Your task to perform on an android device: How big is a giraffe? Image 0: 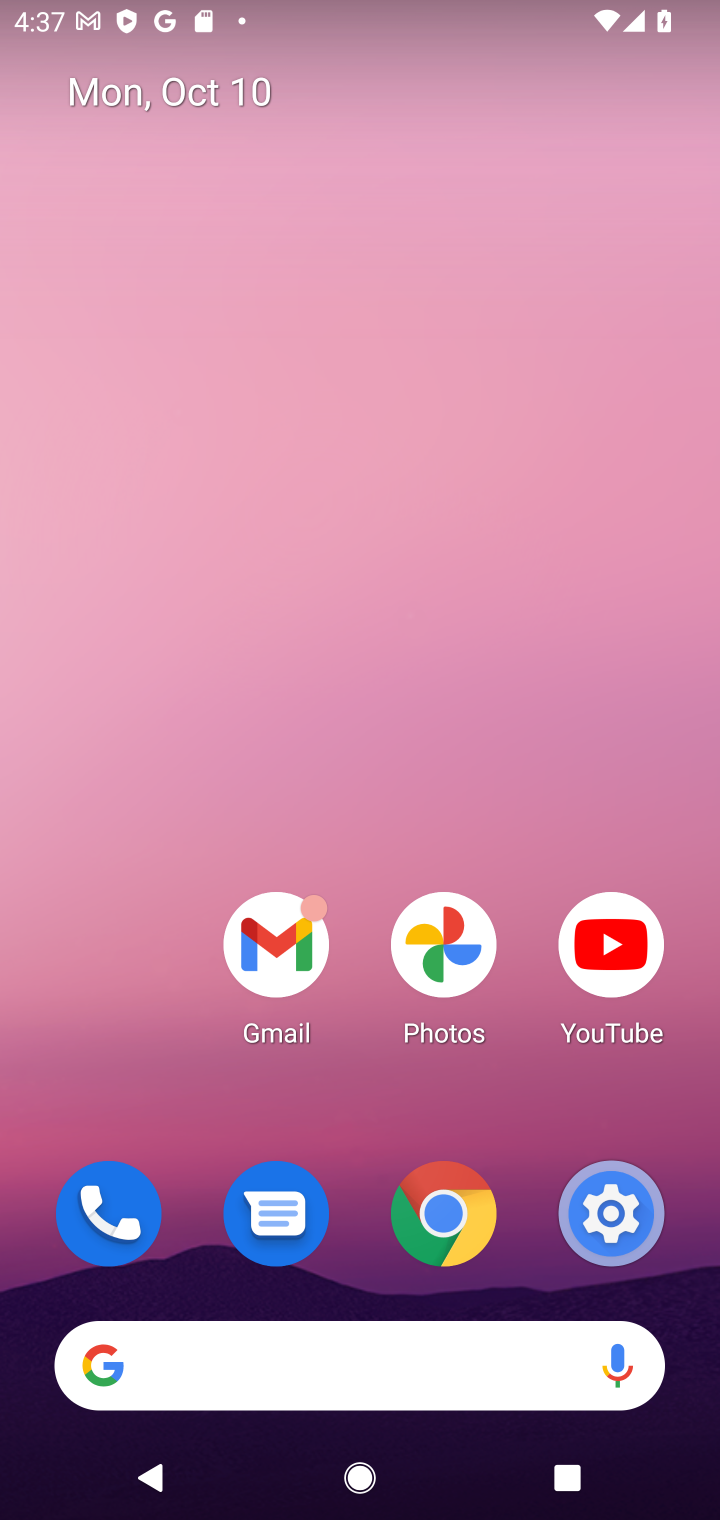
Step 0: click (386, 1379)
Your task to perform on an android device: How big is a giraffe? Image 1: 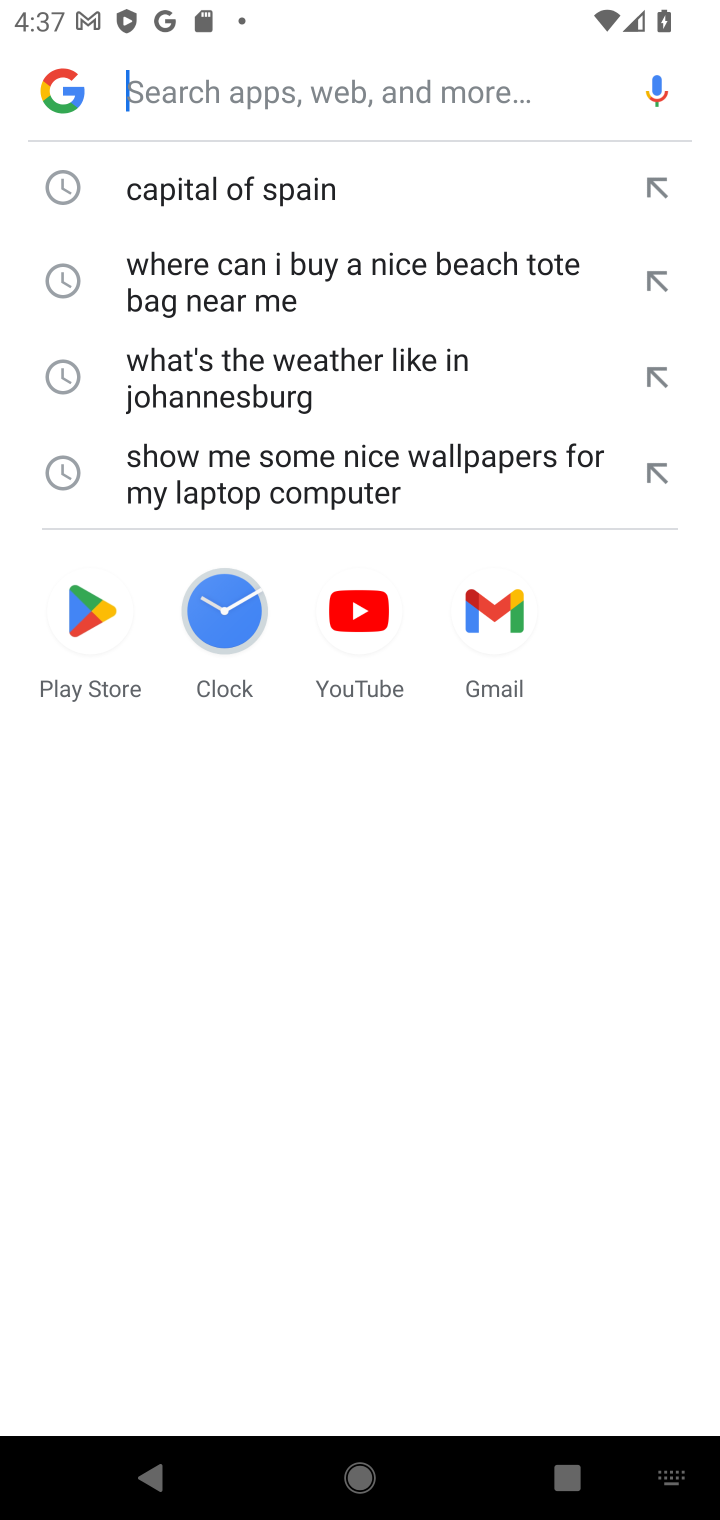
Step 1: type "How big is a giraffe?"
Your task to perform on an android device: How big is a giraffe? Image 2: 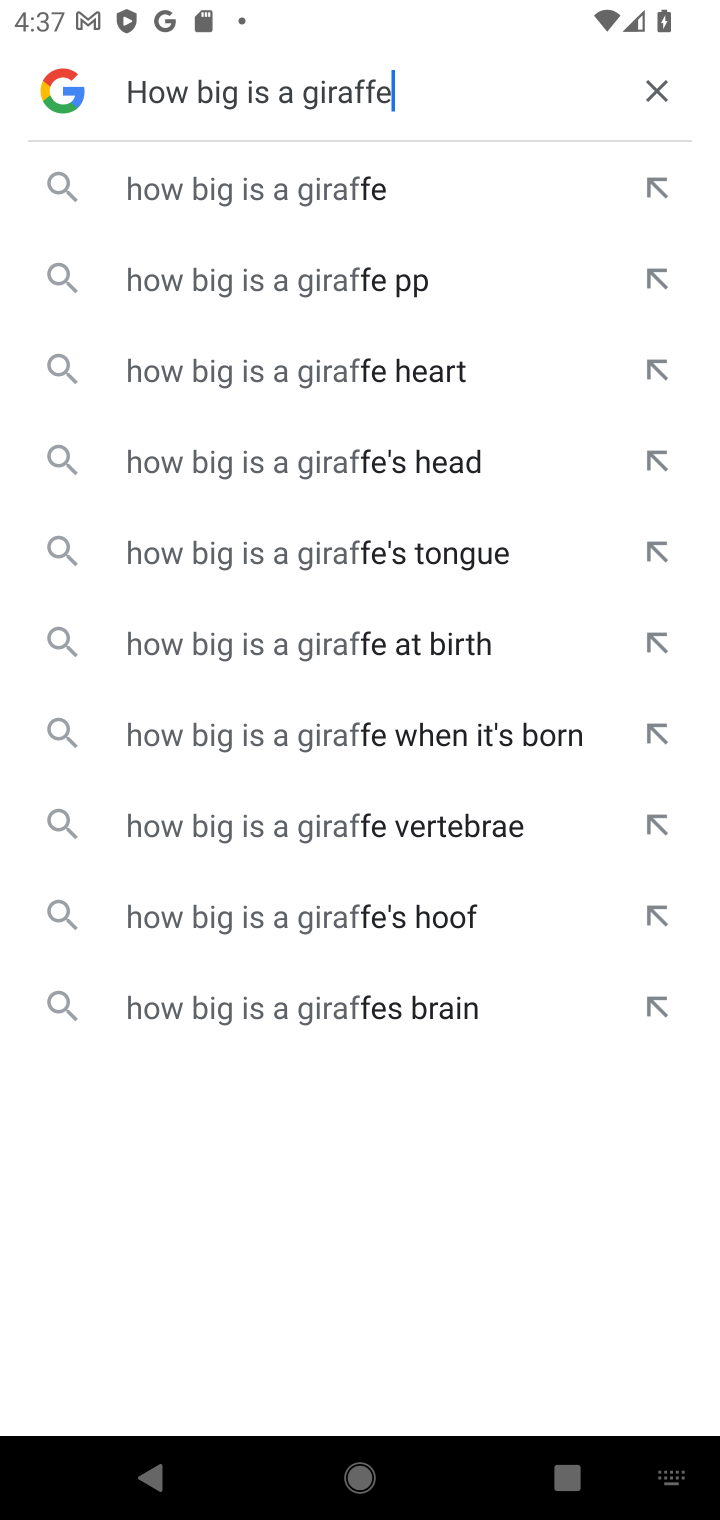
Step 2: type ""
Your task to perform on an android device: How big is a giraffe? Image 3: 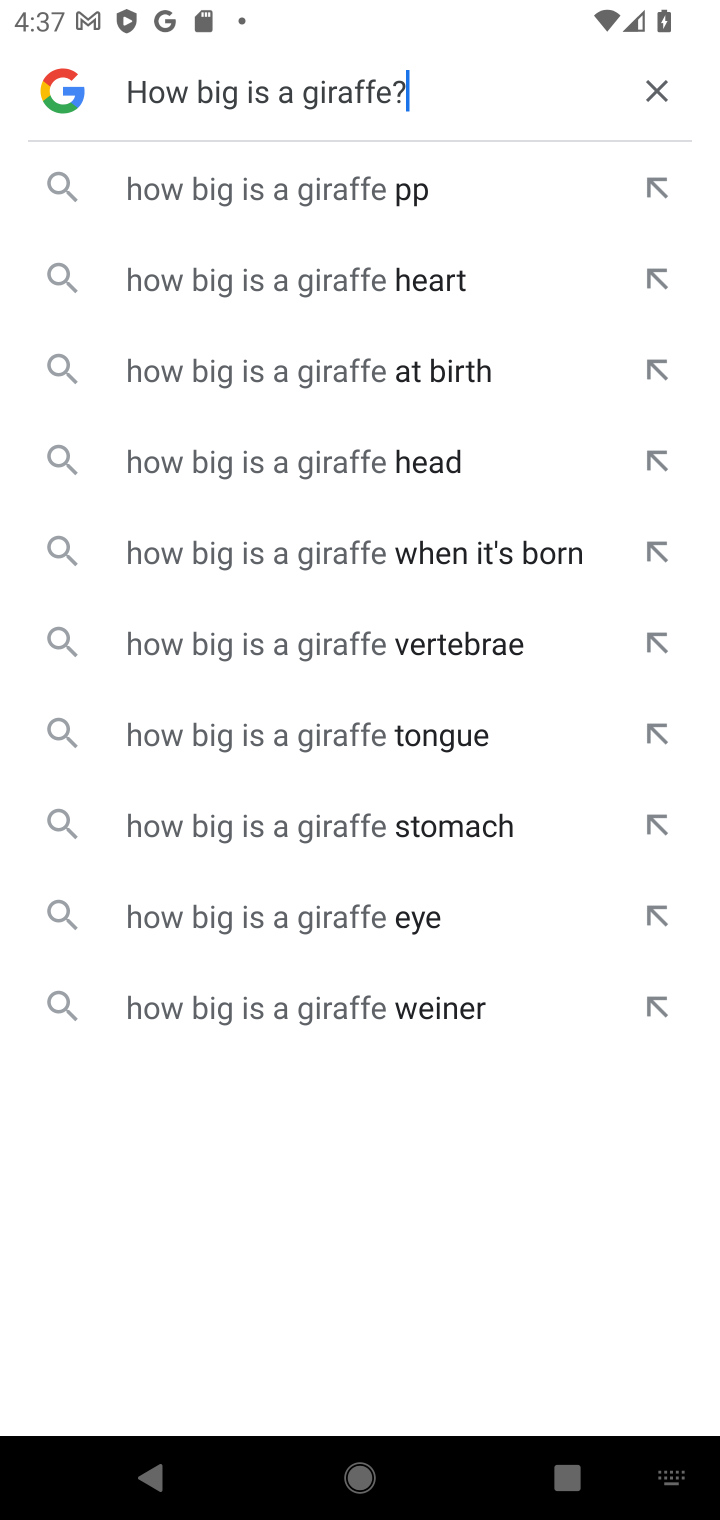
Step 3: click (442, 185)
Your task to perform on an android device: How big is a giraffe? Image 4: 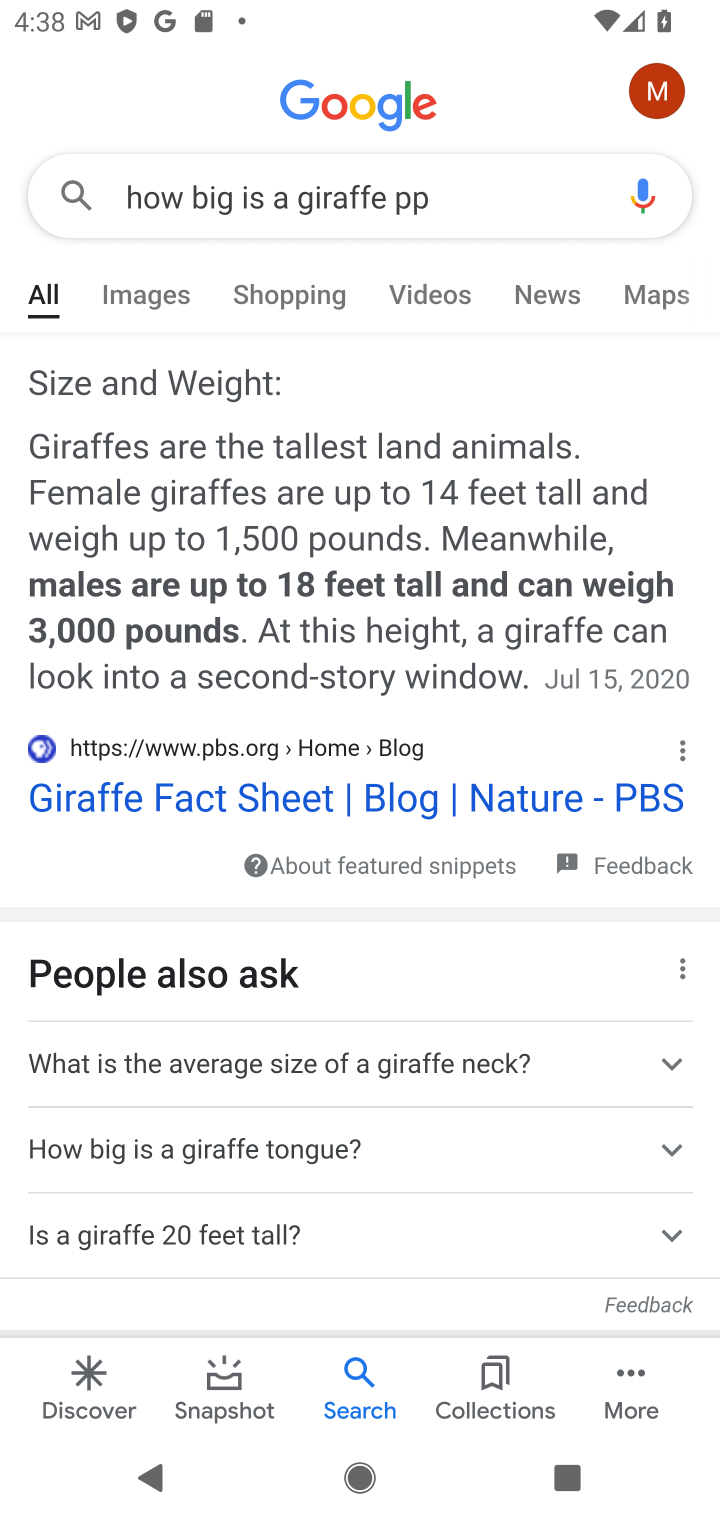
Step 4: task complete